Your task to perform on an android device: What's the weather? Image 0: 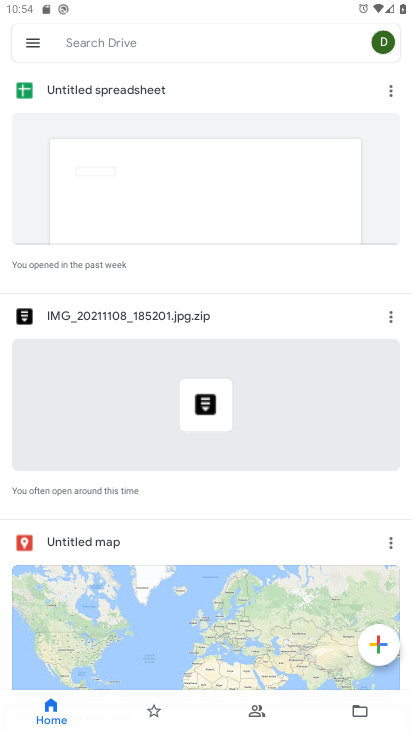
Step 0: press home button
Your task to perform on an android device: What's the weather? Image 1: 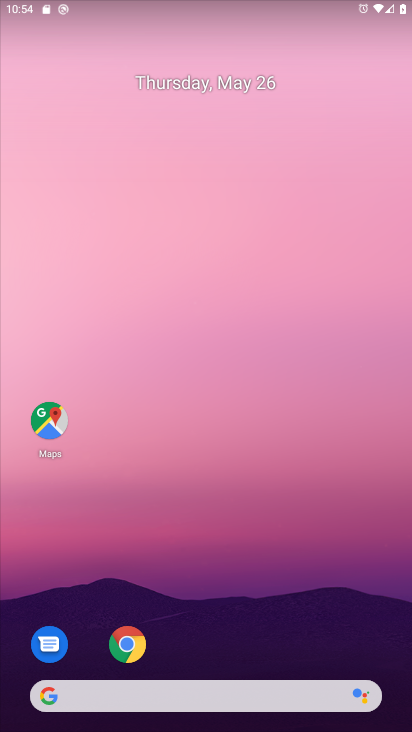
Step 1: click (280, 693)
Your task to perform on an android device: What's the weather? Image 2: 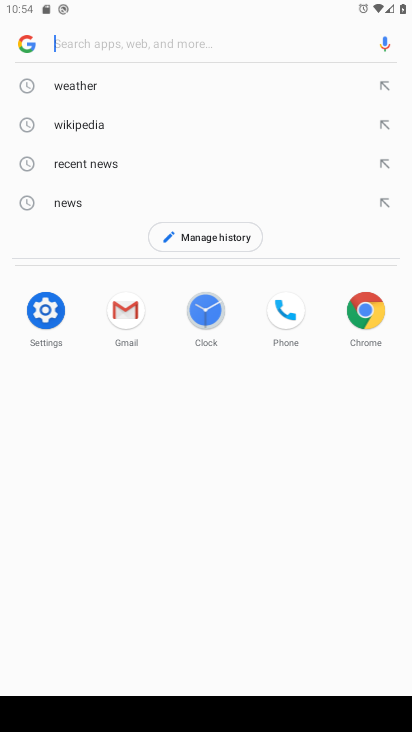
Step 2: click (84, 87)
Your task to perform on an android device: What's the weather? Image 3: 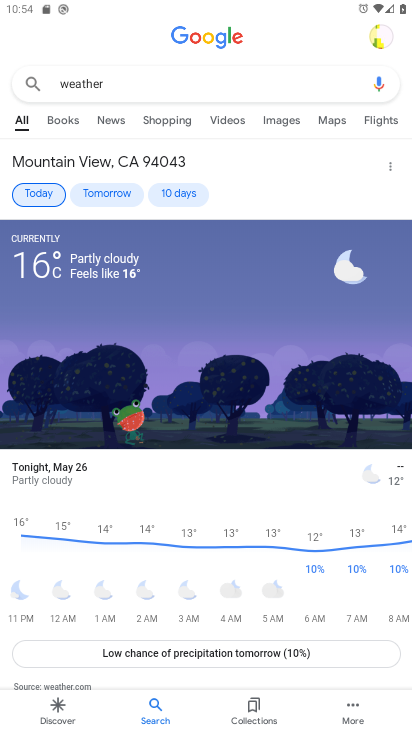
Step 3: task complete